Your task to perform on an android device: Open internet settings Image 0: 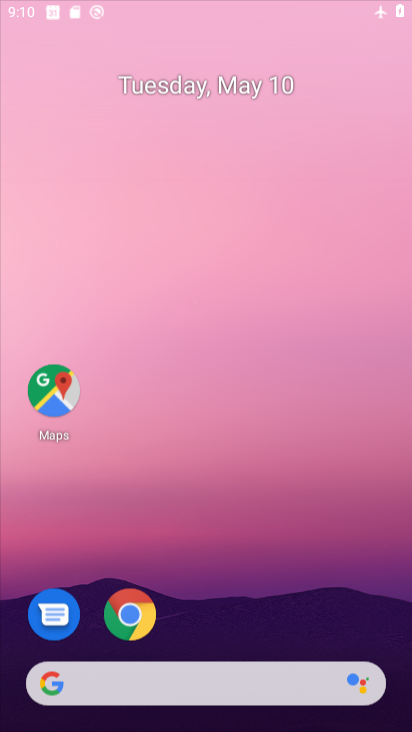
Step 0: drag from (196, 589) to (238, 168)
Your task to perform on an android device: Open internet settings Image 1: 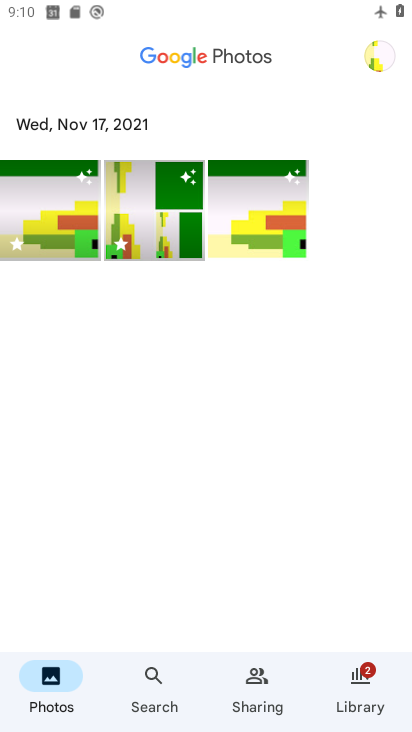
Step 1: drag from (234, 595) to (237, 225)
Your task to perform on an android device: Open internet settings Image 2: 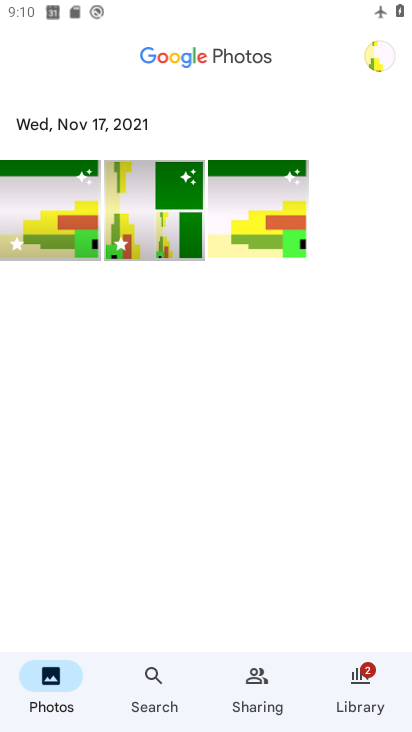
Step 2: press home button
Your task to perform on an android device: Open internet settings Image 3: 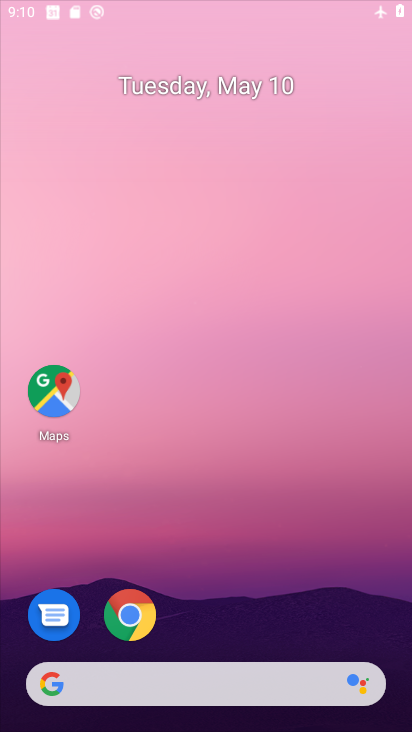
Step 3: drag from (155, 559) to (190, 220)
Your task to perform on an android device: Open internet settings Image 4: 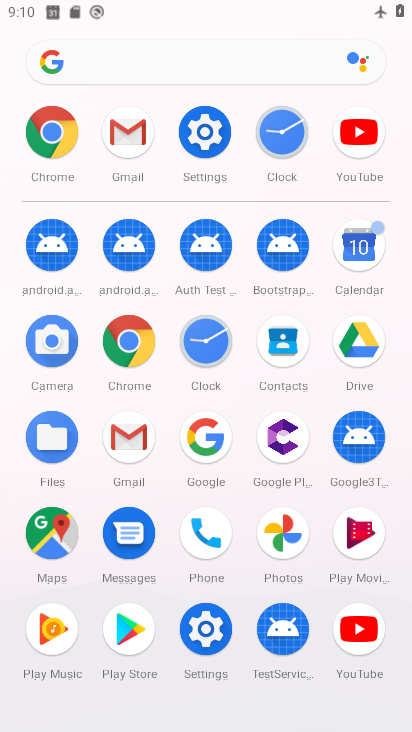
Step 4: click (196, 140)
Your task to perform on an android device: Open internet settings Image 5: 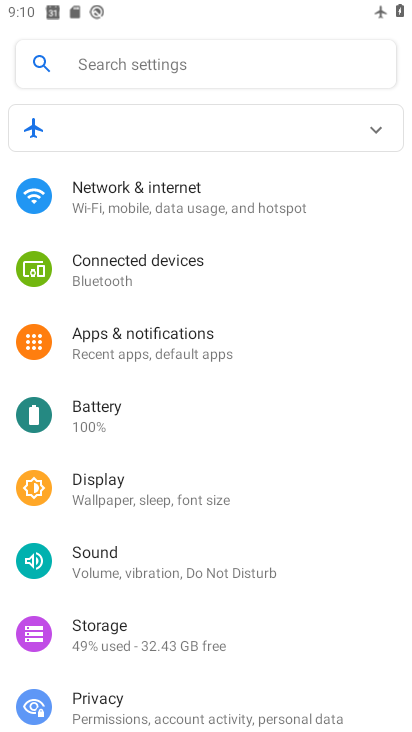
Step 5: click (121, 210)
Your task to perform on an android device: Open internet settings Image 6: 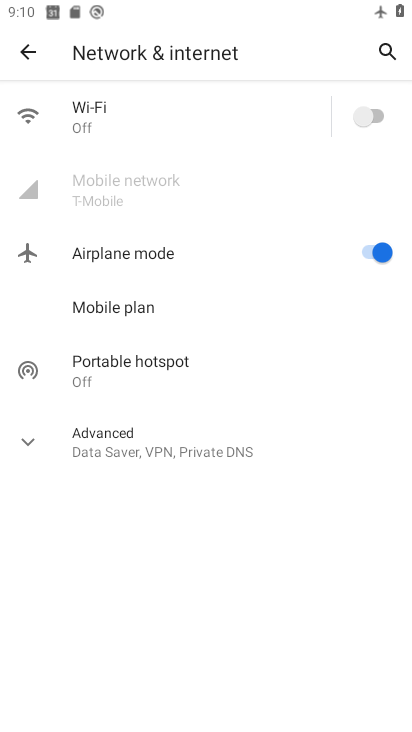
Step 6: task complete